Your task to perform on an android device: Open Yahoo.com Image 0: 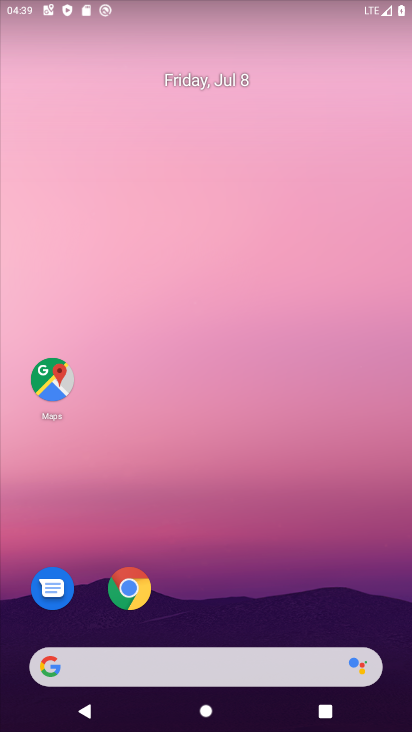
Step 0: click (134, 585)
Your task to perform on an android device: Open Yahoo.com Image 1: 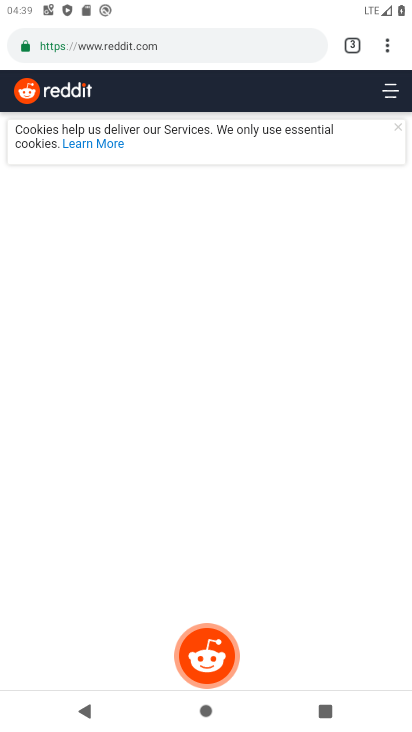
Step 1: press back button
Your task to perform on an android device: Open Yahoo.com Image 2: 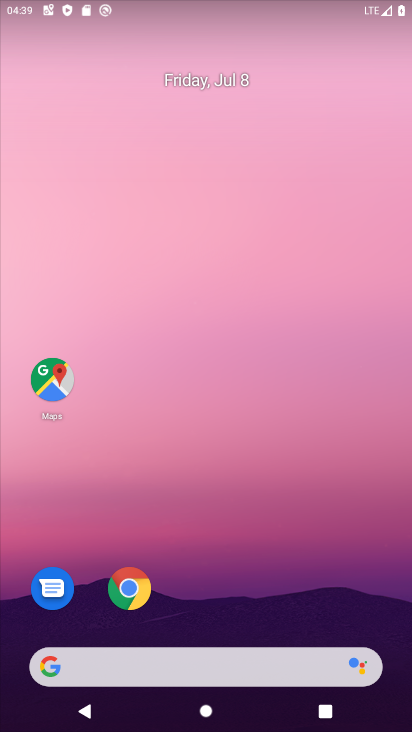
Step 2: click (133, 585)
Your task to perform on an android device: Open Yahoo.com Image 3: 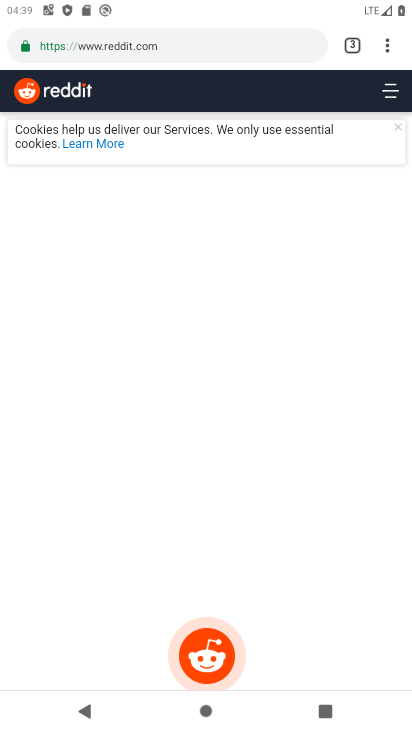
Step 3: press back button
Your task to perform on an android device: Open Yahoo.com Image 4: 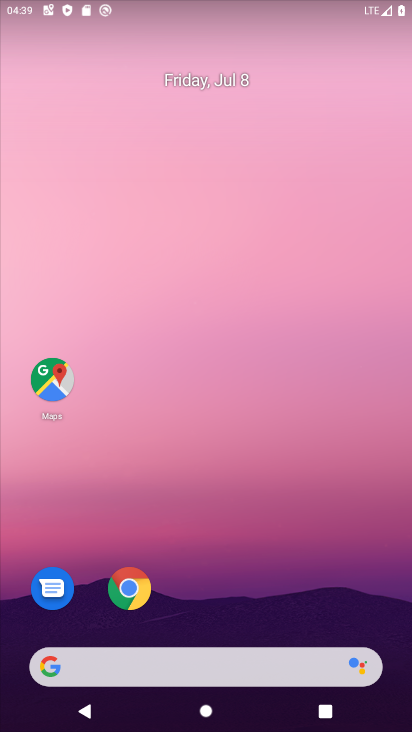
Step 4: click (132, 591)
Your task to perform on an android device: Open Yahoo.com Image 5: 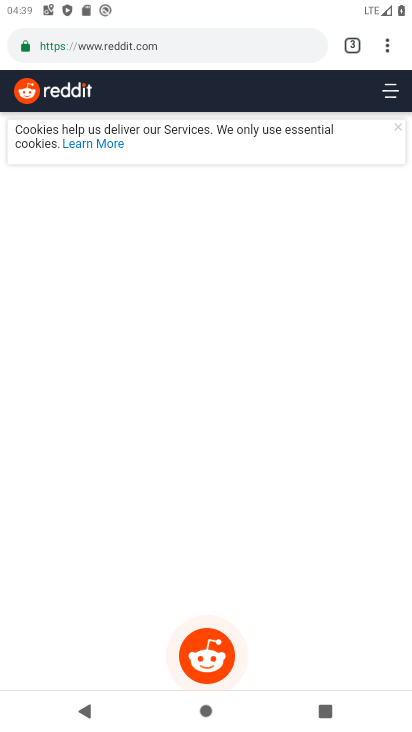
Step 5: click (134, 54)
Your task to perform on an android device: Open Yahoo.com Image 6: 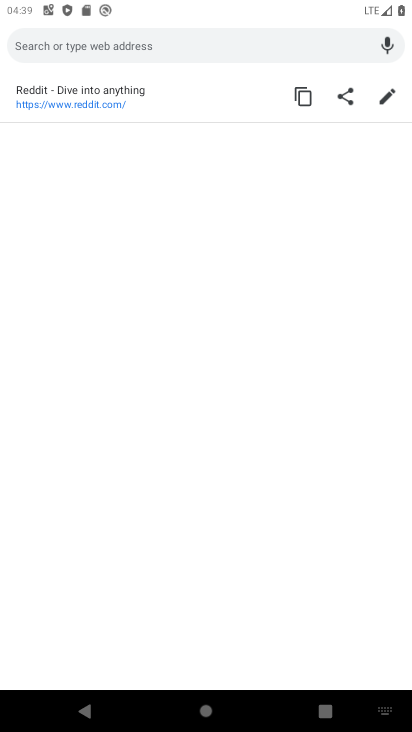
Step 6: type "www.yahoo.com"
Your task to perform on an android device: Open Yahoo.com Image 7: 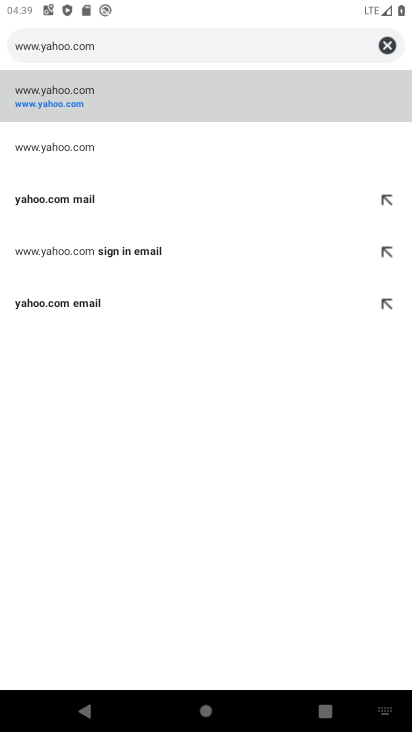
Step 7: click (36, 108)
Your task to perform on an android device: Open Yahoo.com Image 8: 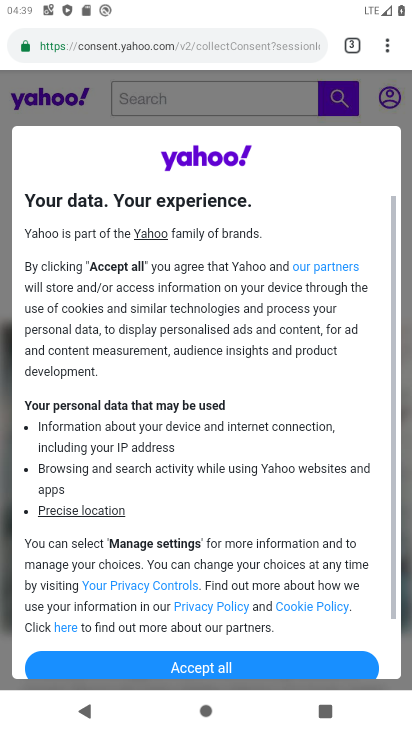
Step 8: task complete